Your task to perform on an android device: Toggle the flashlight Image 0: 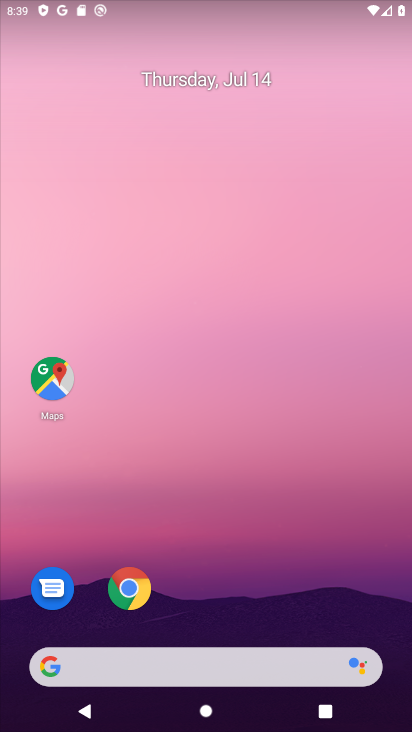
Step 0: drag from (294, 667) to (281, 284)
Your task to perform on an android device: Toggle the flashlight Image 1: 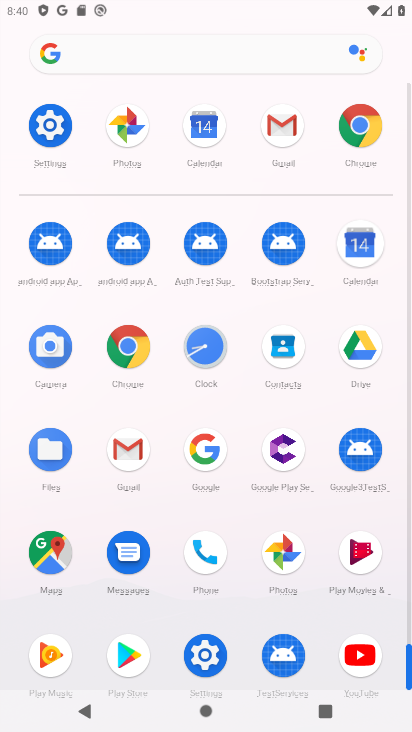
Step 1: task complete